Your task to perform on an android device: Open settings on Google Maps Image 0: 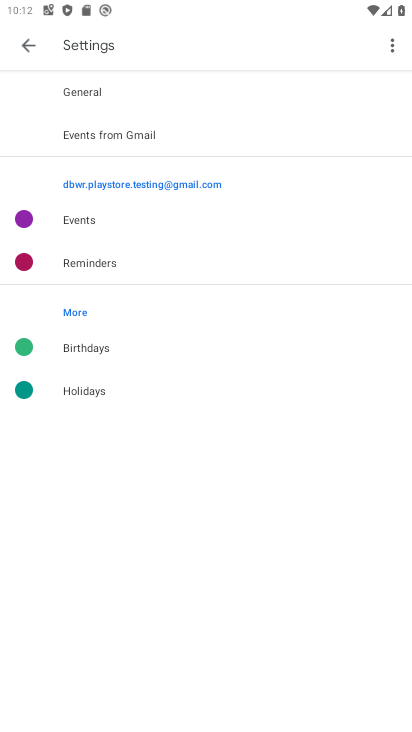
Step 0: press home button
Your task to perform on an android device: Open settings on Google Maps Image 1: 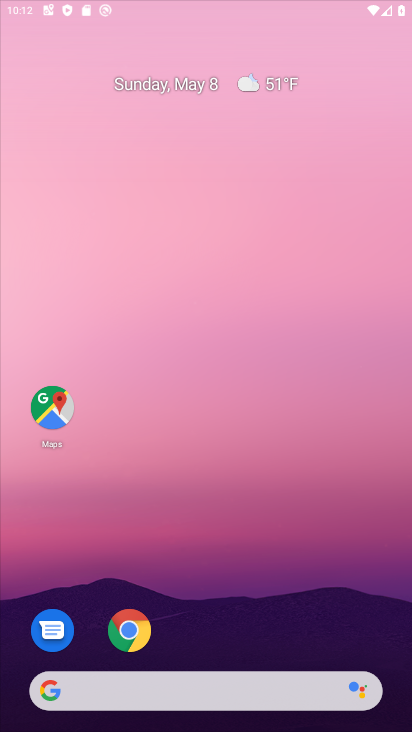
Step 1: drag from (356, 641) to (232, 39)
Your task to perform on an android device: Open settings on Google Maps Image 2: 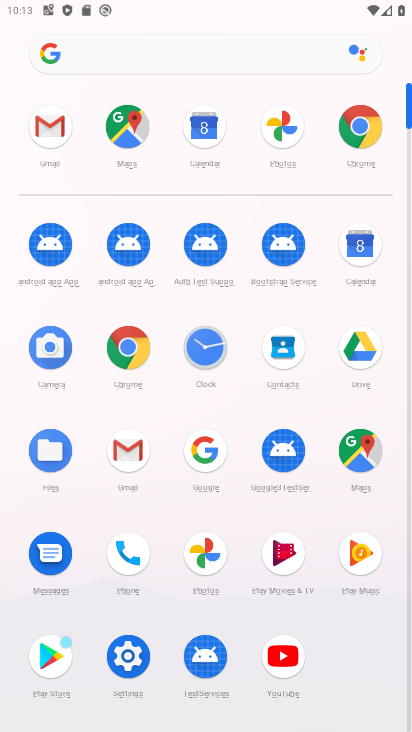
Step 2: click (362, 465)
Your task to perform on an android device: Open settings on Google Maps Image 3: 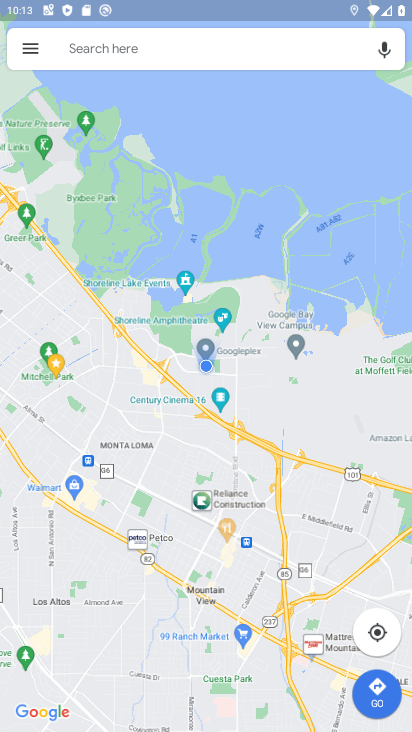
Step 3: click (22, 38)
Your task to perform on an android device: Open settings on Google Maps Image 4: 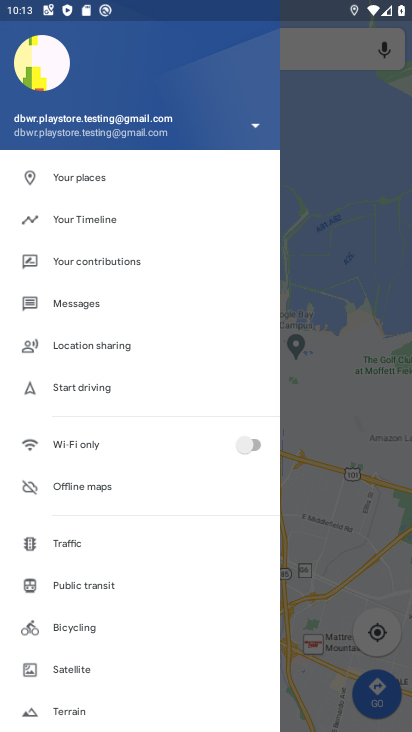
Step 4: drag from (116, 700) to (192, 114)
Your task to perform on an android device: Open settings on Google Maps Image 5: 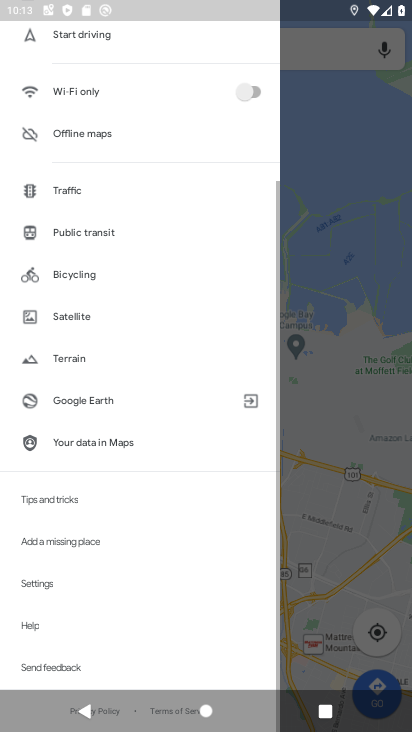
Step 5: click (70, 577)
Your task to perform on an android device: Open settings on Google Maps Image 6: 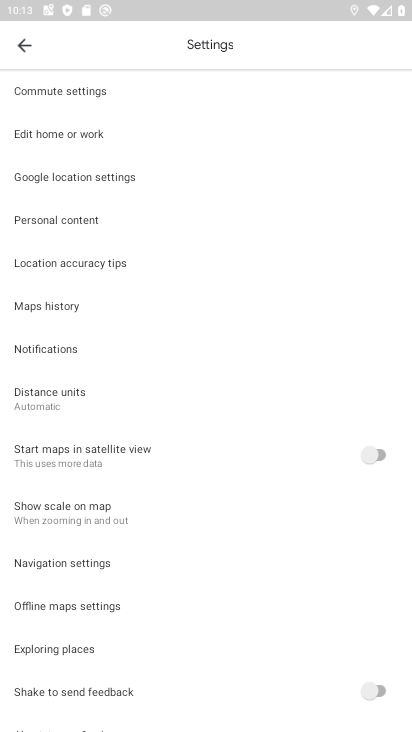
Step 6: task complete